Your task to perform on an android device: toggle wifi Image 0: 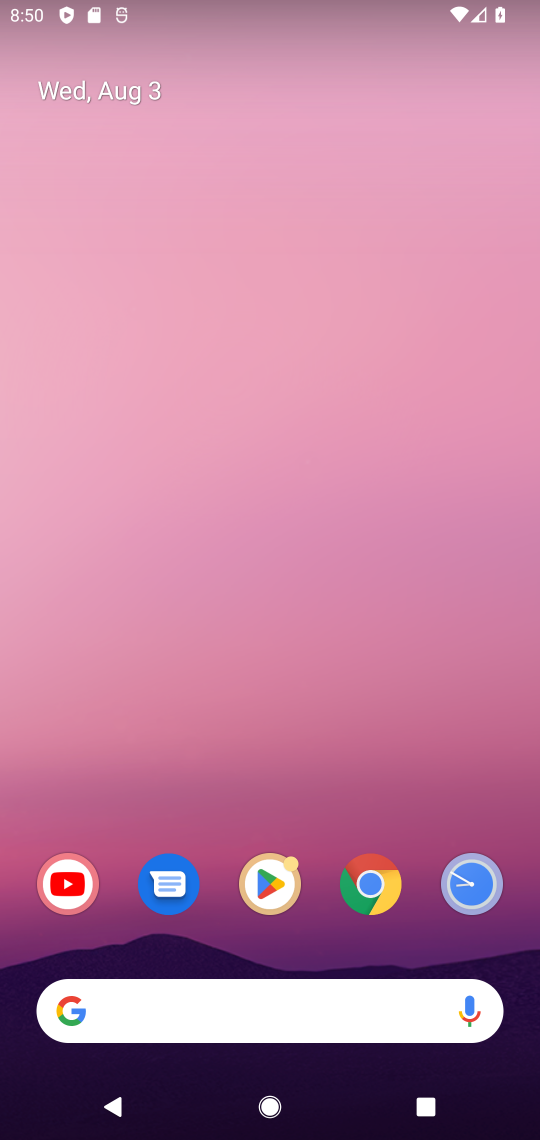
Step 0: drag from (229, 943) to (208, 487)
Your task to perform on an android device: toggle wifi Image 1: 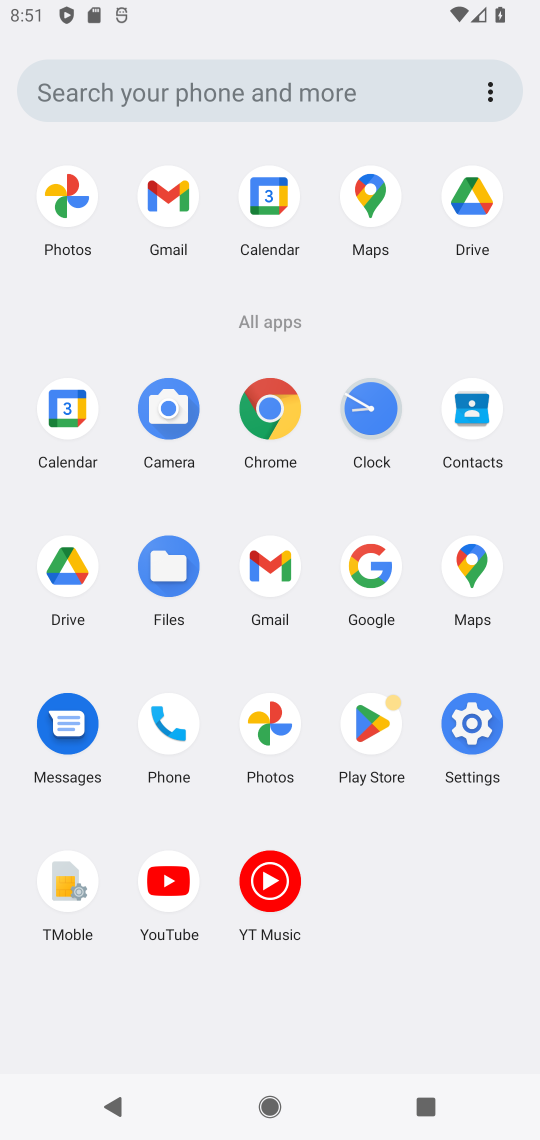
Step 1: click (466, 729)
Your task to perform on an android device: toggle wifi Image 2: 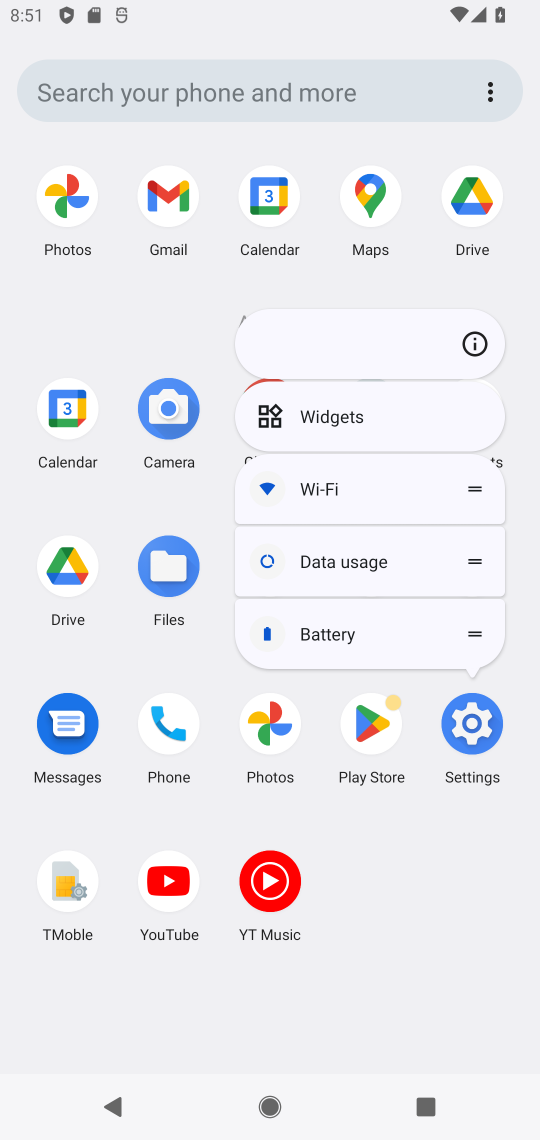
Step 2: click (464, 354)
Your task to perform on an android device: toggle wifi Image 3: 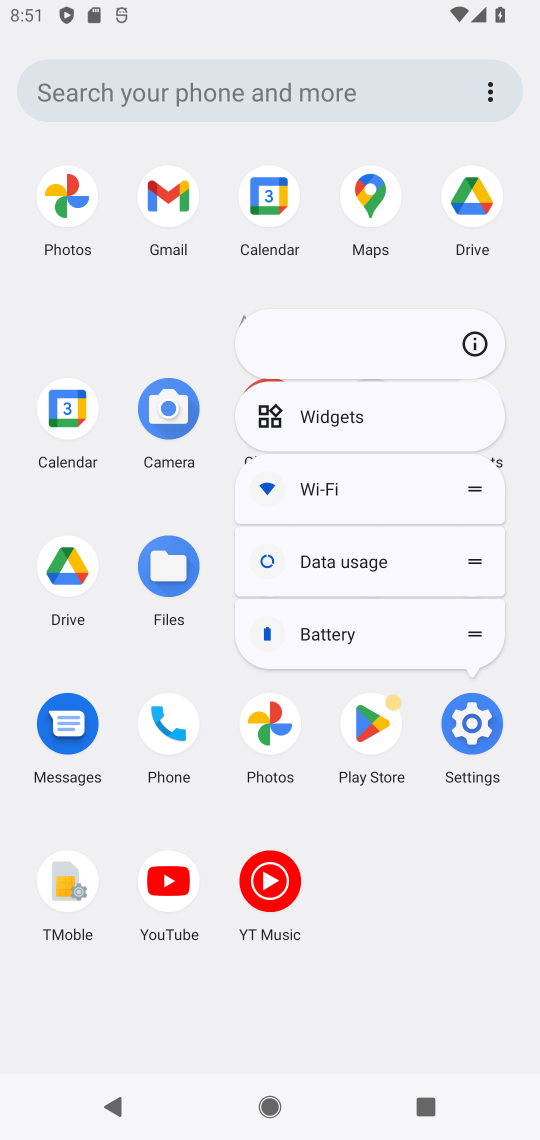
Step 3: click (474, 356)
Your task to perform on an android device: toggle wifi Image 4: 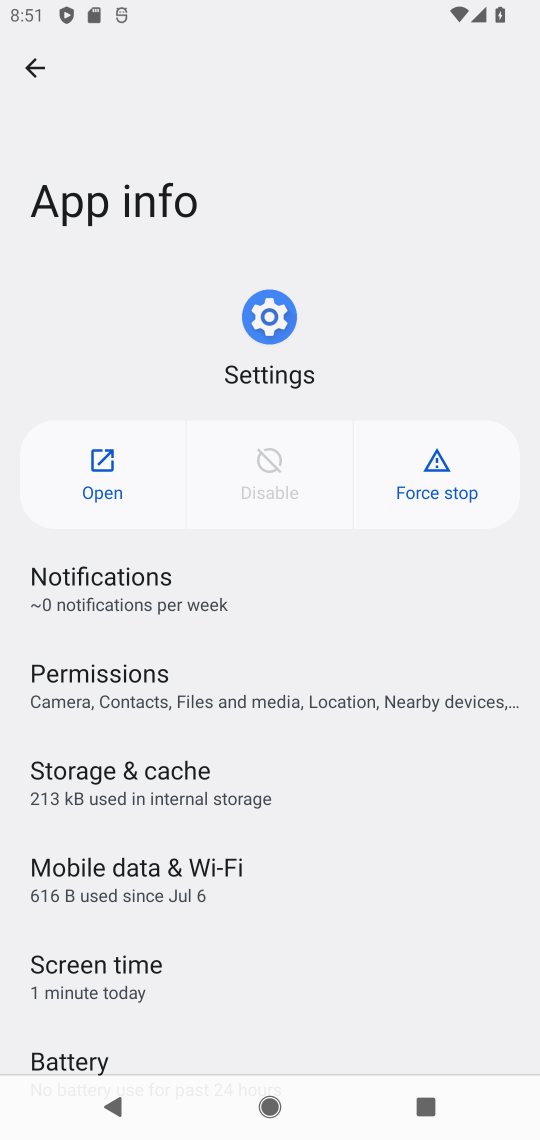
Step 4: click (80, 465)
Your task to perform on an android device: toggle wifi Image 5: 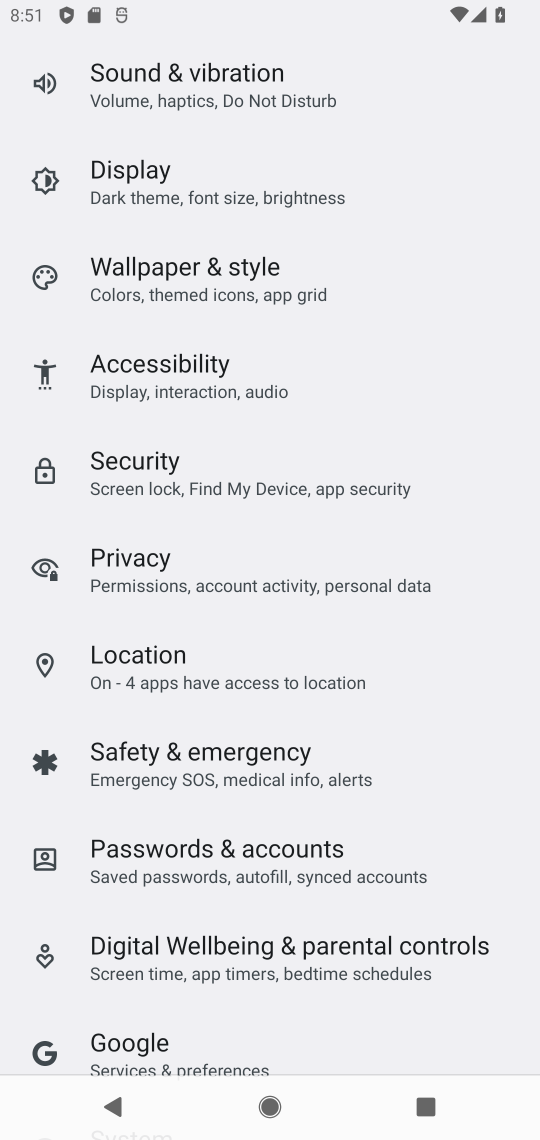
Step 5: drag from (247, 267) to (284, 1058)
Your task to perform on an android device: toggle wifi Image 6: 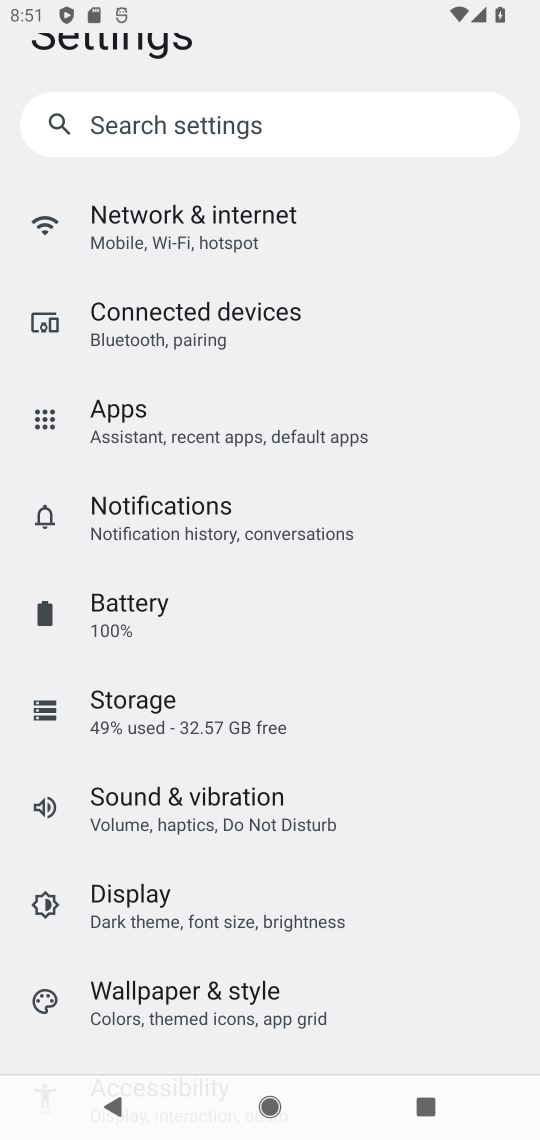
Step 6: click (205, 245)
Your task to perform on an android device: toggle wifi Image 7: 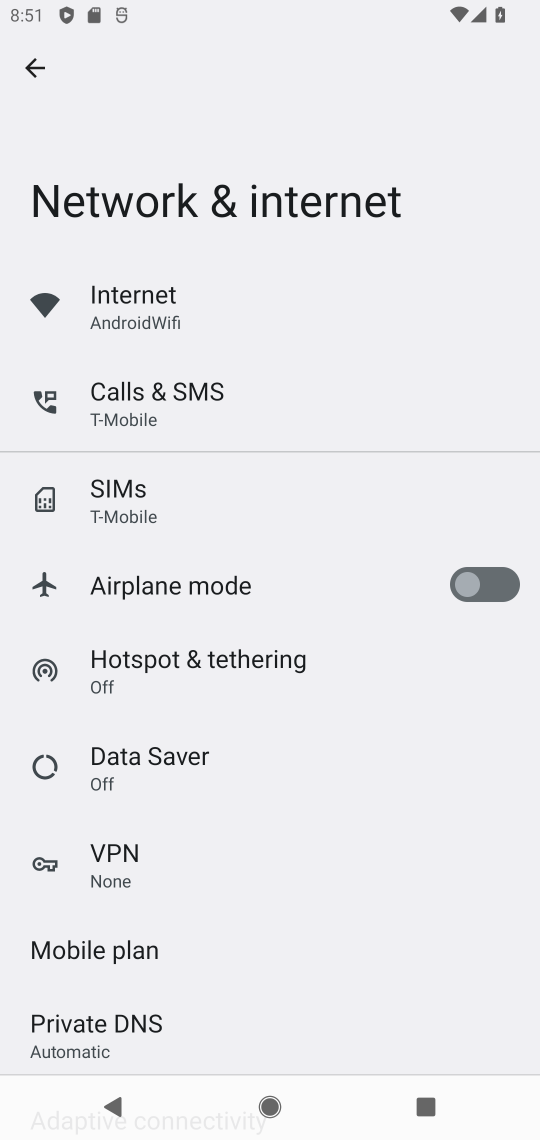
Step 7: drag from (259, 772) to (278, 1018)
Your task to perform on an android device: toggle wifi Image 8: 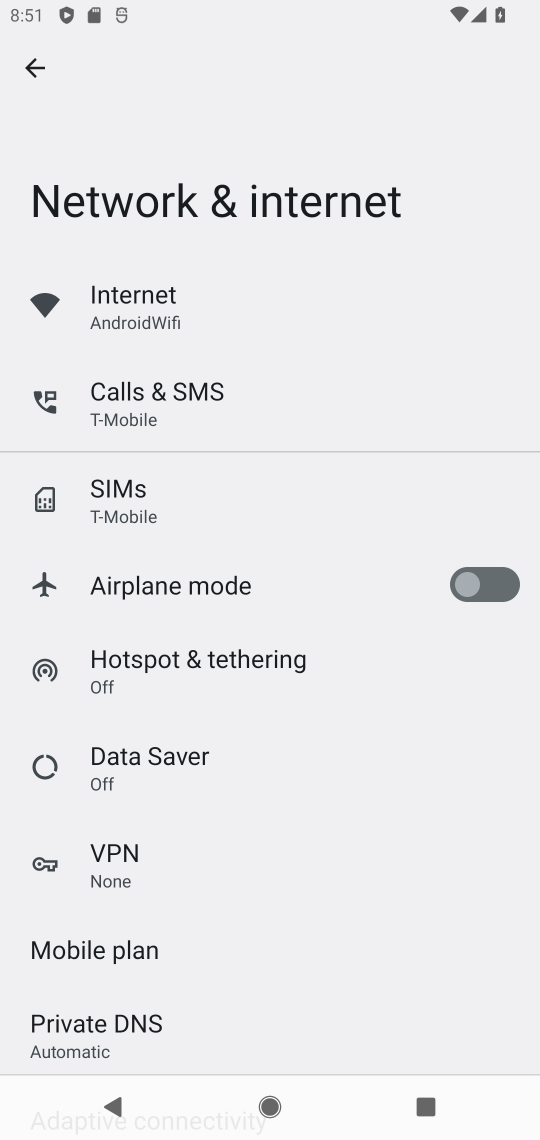
Step 8: click (150, 313)
Your task to perform on an android device: toggle wifi Image 9: 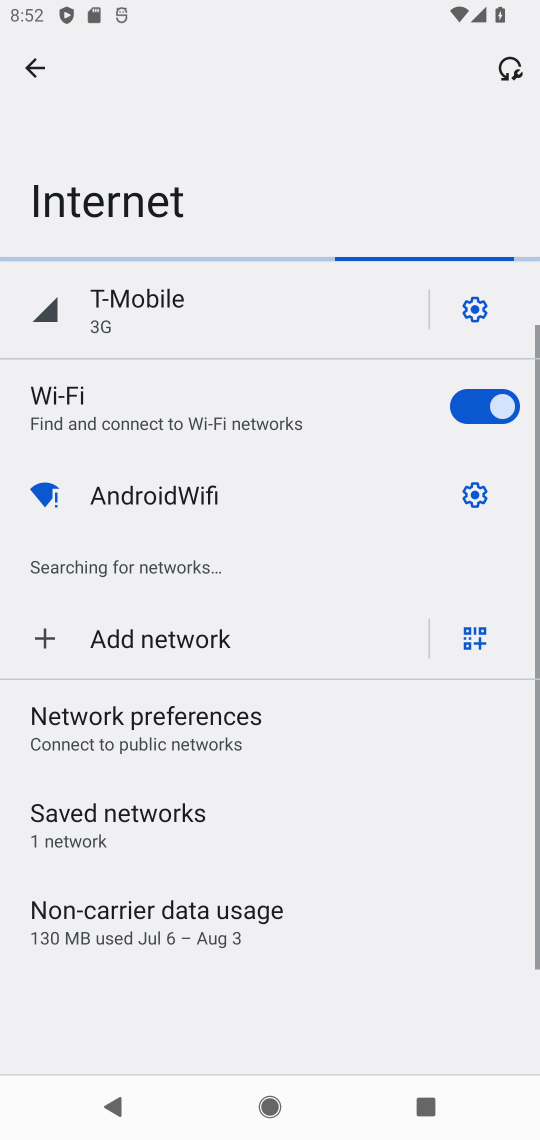
Step 9: click (160, 409)
Your task to perform on an android device: toggle wifi Image 10: 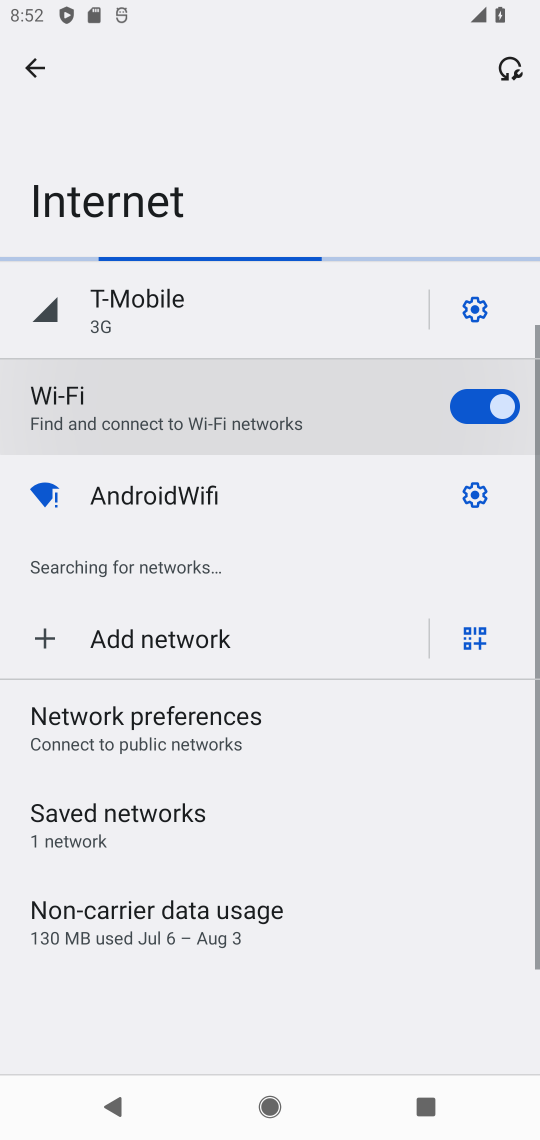
Step 10: click (501, 406)
Your task to perform on an android device: toggle wifi Image 11: 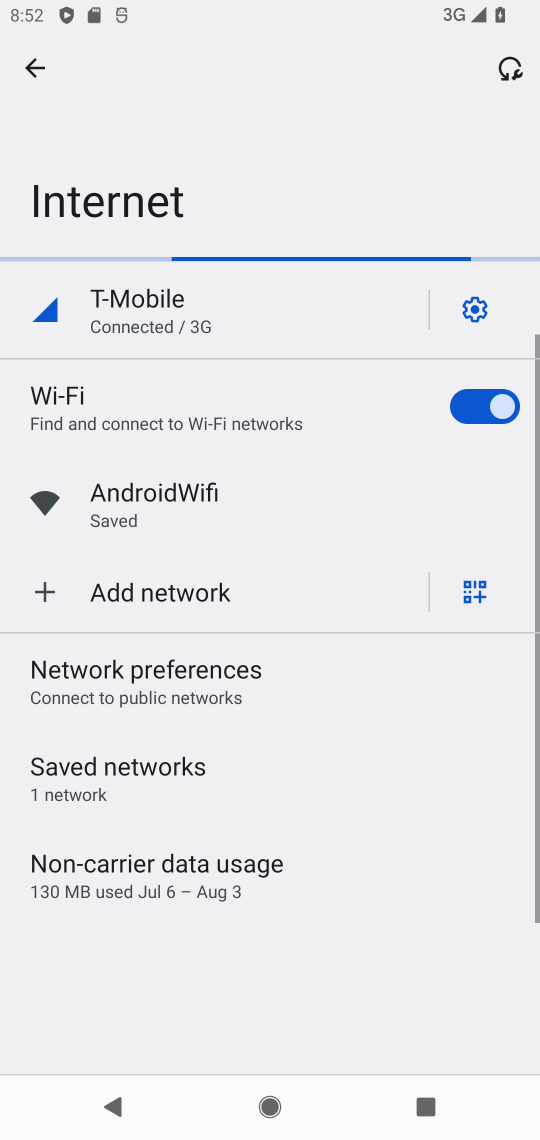
Step 11: task complete